Your task to perform on an android device: Open Reddit.com Image 0: 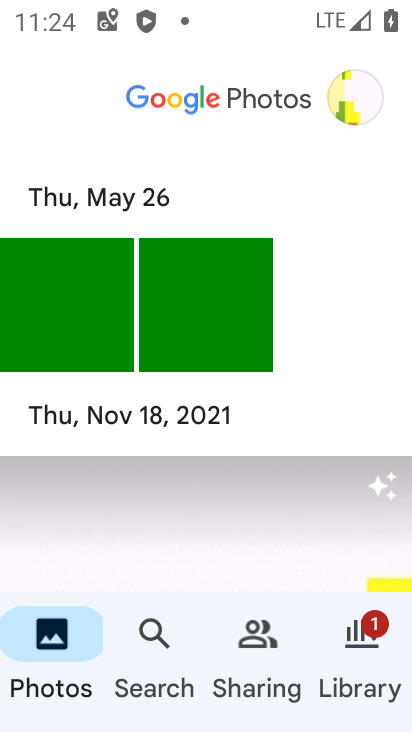
Step 0: press home button
Your task to perform on an android device: Open Reddit.com Image 1: 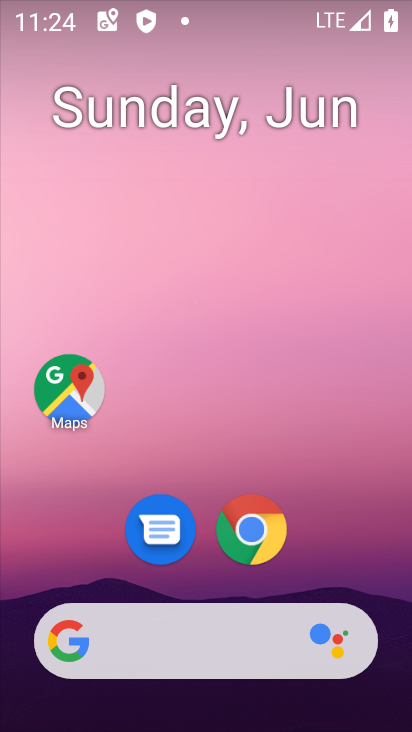
Step 1: click (131, 662)
Your task to perform on an android device: Open Reddit.com Image 2: 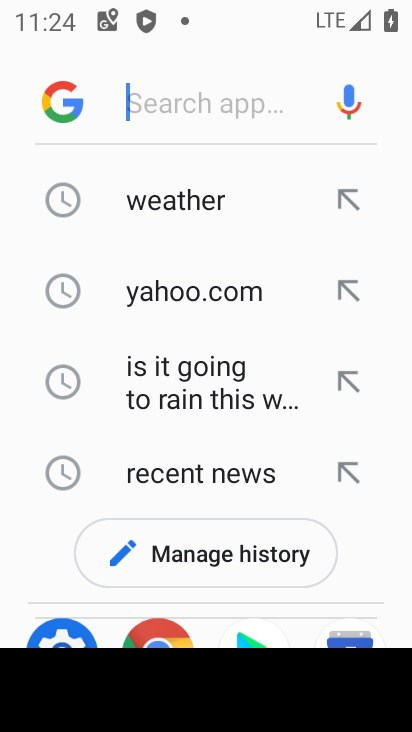
Step 2: type "reddit.com"
Your task to perform on an android device: Open Reddit.com Image 3: 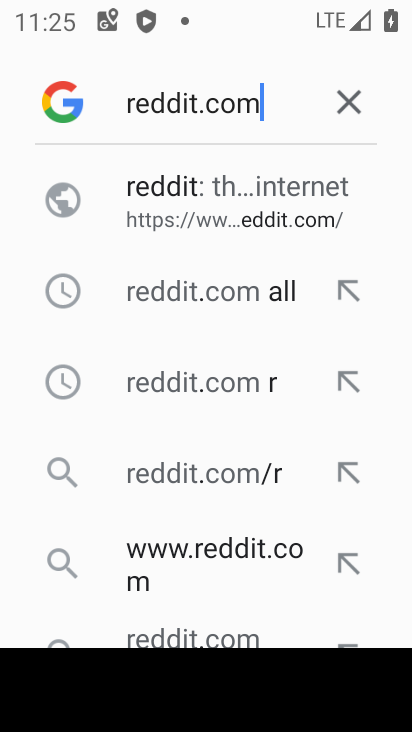
Step 3: click (314, 205)
Your task to perform on an android device: Open Reddit.com Image 4: 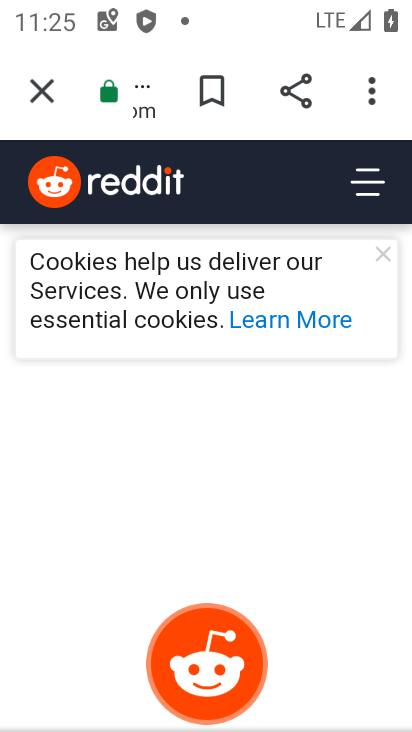
Step 4: task complete